Your task to perform on an android device: toggle notification dots Image 0: 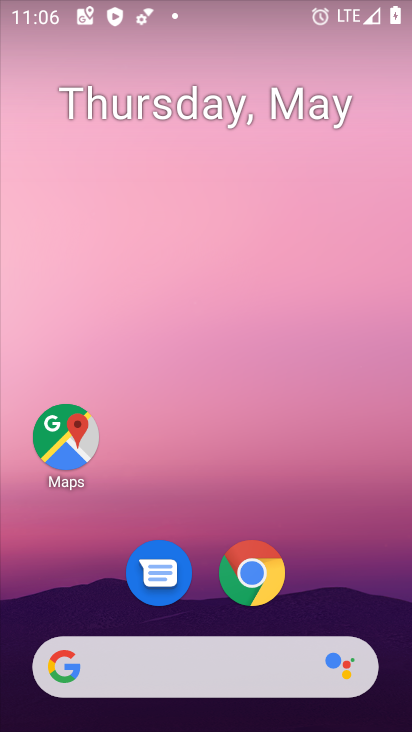
Step 0: drag from (209, 615) to (196, 255)
Your task to perform on an android device: toggle notification dots Image 1: 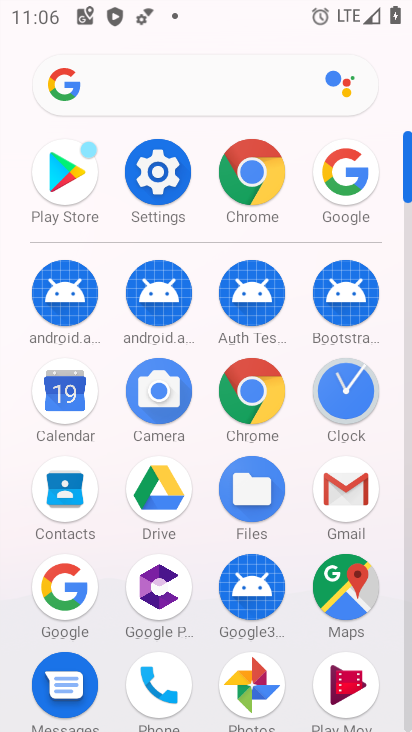
Step 1: click (167, 181)
Your task to perform on an android device: toggle notification dots Image 2: 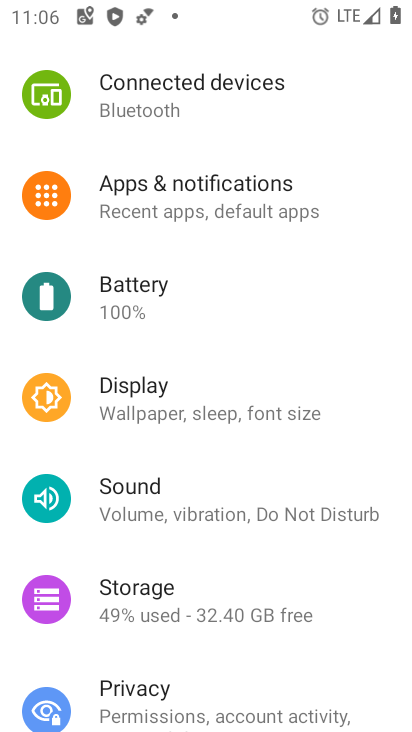
Step 2: click (201, 218)
Your task to perform on an android device: toggle notification dots Image 3: 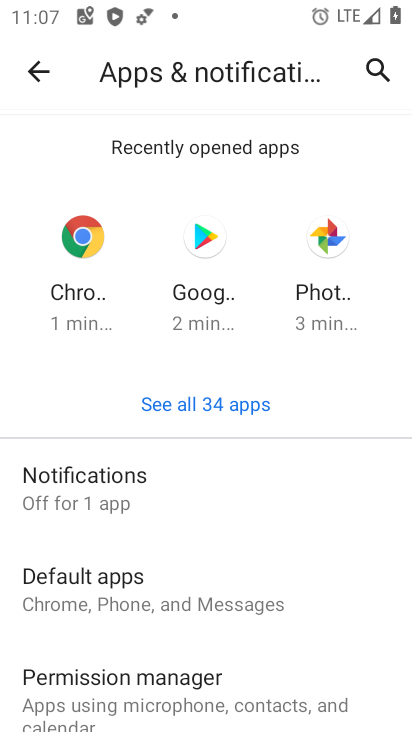
Step 3: click (179, 478)
Your task to perform on an android device: toggle notification dots Image 4: 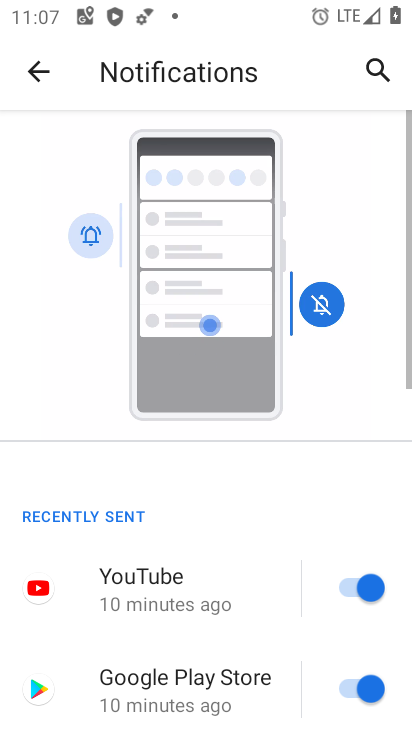
Step 4: drag from (187, 617) to (215, 291)
Your task to perform on an android device: toggle notification dots Image 5: 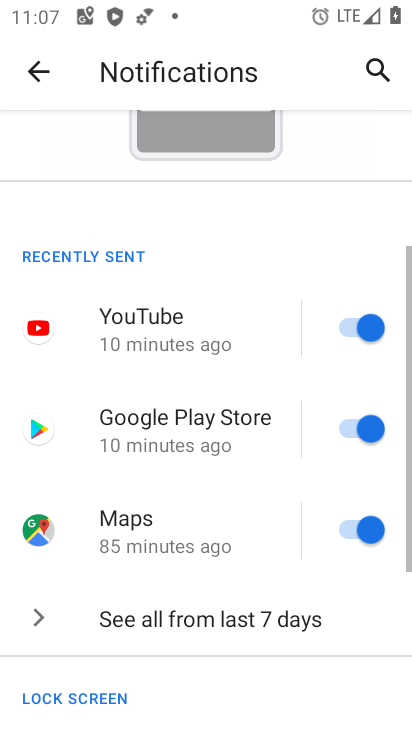
Step 5: drag from (220, 569) to (245, 266)
Your task to perform on an android device: toggle notification dots Image 6: 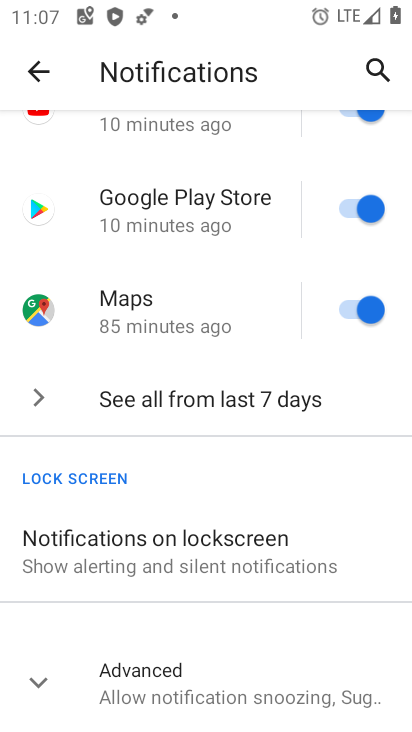
Step 6: drag from (235, 632) to (244, 372)
Your task to perform on an android device: toggle notification dots Image 7: 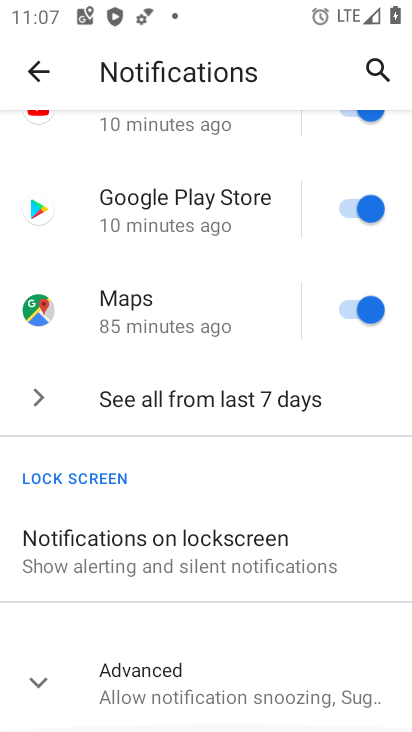
Step 7: click (202, 663)
Your task to perform on an android device: toggle notification dots Image 8: 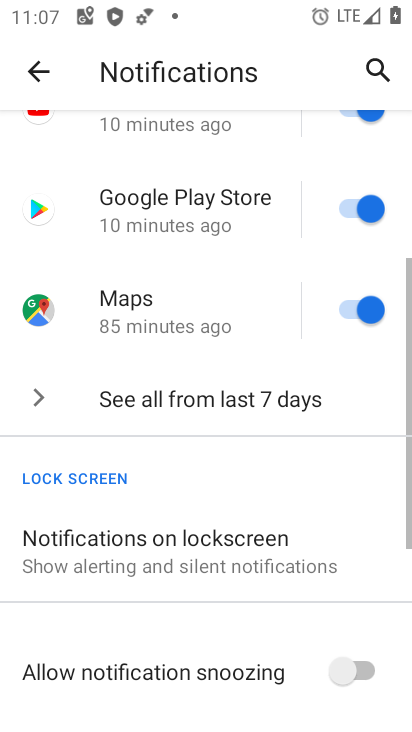
Step 8: drag from (206, 660) to (246, 384)
Your task to perform on an android device: toggle notification dots Image 9: 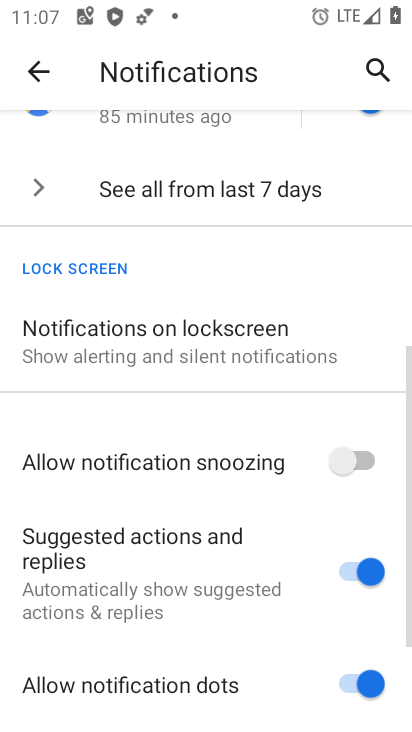
Step 9: drag from (280, 641) to (291, 414)
Your task to perform on an android device: toggle notification dots Image 10: 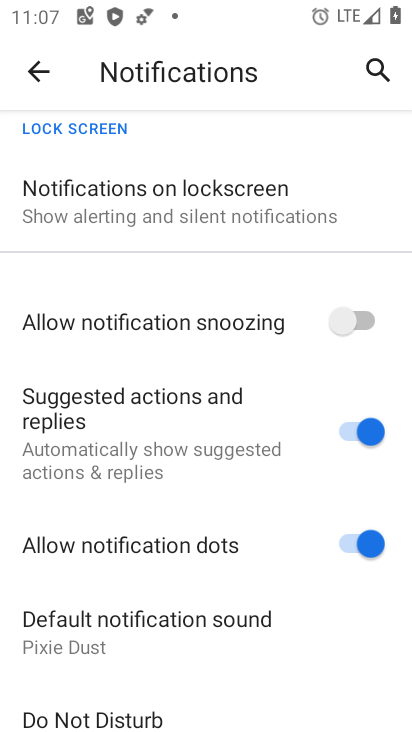
Step 10: click (349, 540)
Your task to perform on an android device: toggle notification dots Image 11: 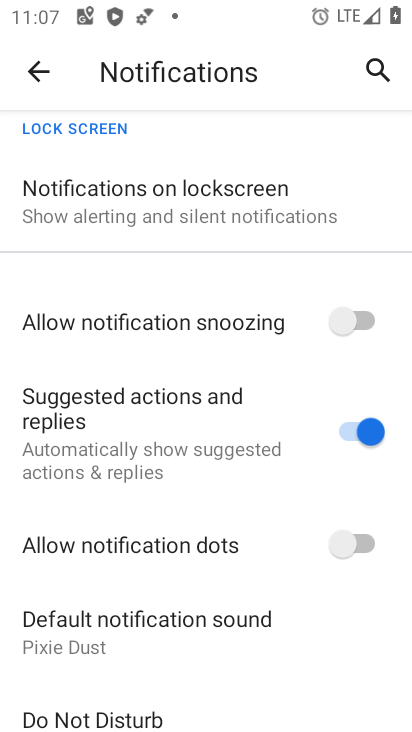
Step 11: task complete